Your task to perform on an android device: toggle show notifications on the lock screen Image 0: 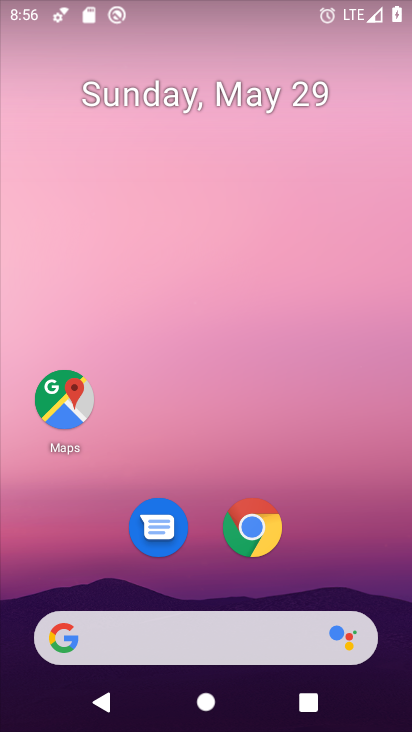
Step 0: press home button
Your task to perform on an android device: toggle show notifications on the lock screen Image 1: 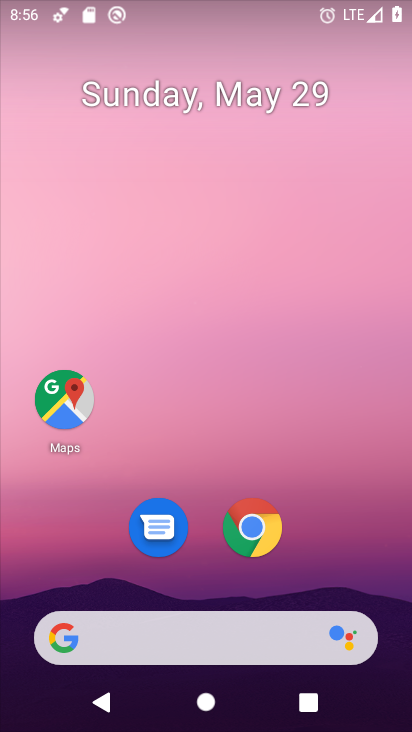
Step 1: drag from (209, 589) to (260, 104)
Your task to perform on an android device: toggle show notifications on the lock screen Image 2: 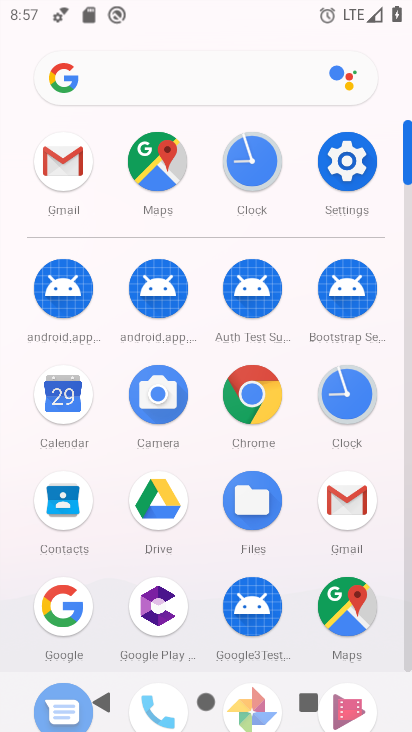
Step 2: click (342, 157)
Your task to perform on an android device: toggle show notifications on the lock screen Image 3: 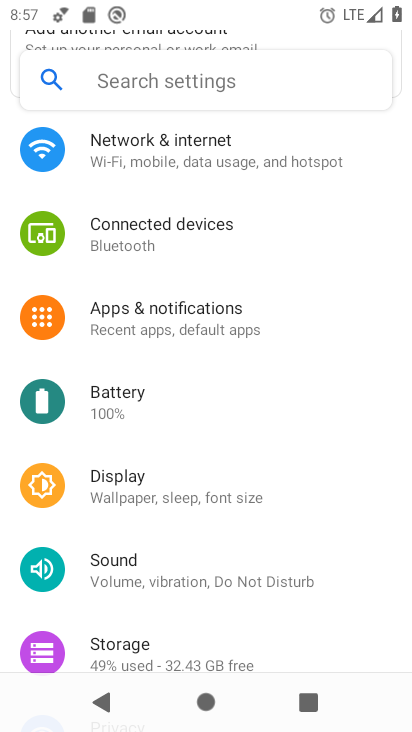
Step 3: click (267, 315)
Your task to perform on an android device: toggle show notifications on the lock screen Image 4: 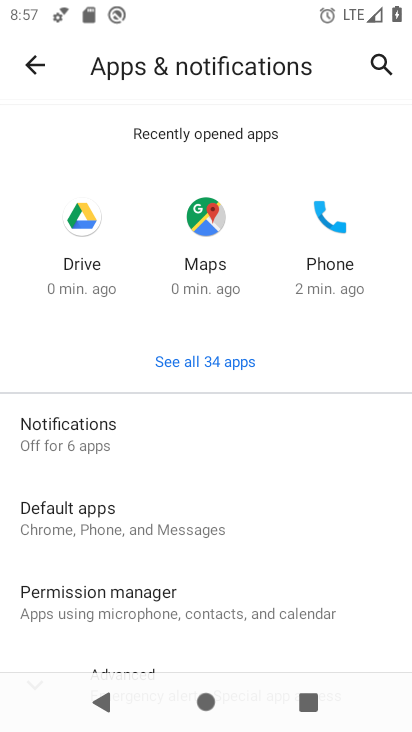
Step 4: click (141, 432)
Your task to perform on an android device: toggle show notifications on the lock screen Image 5: 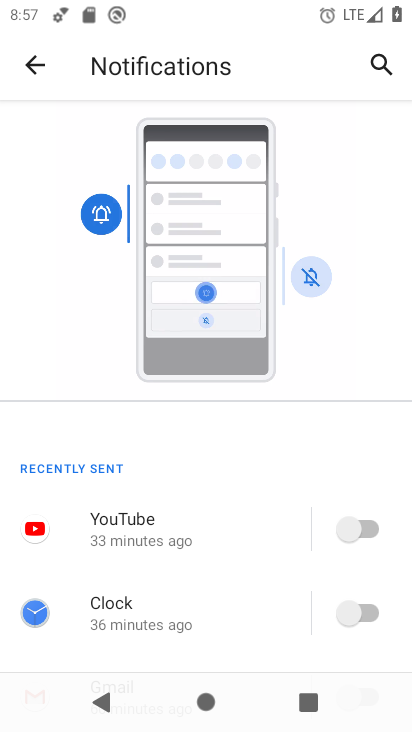
Step 5: drag from (230, 596) to (252, 124)
Your task to perform on an android device: toggle show notifications on the lock screen Image 6: 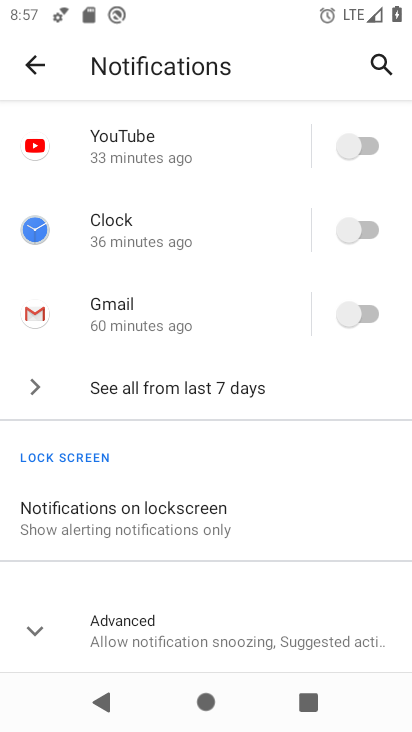
Step 6: click (244, 508)
Your task to perform on an android device: toggle show notifications on the lock screen Image 7: 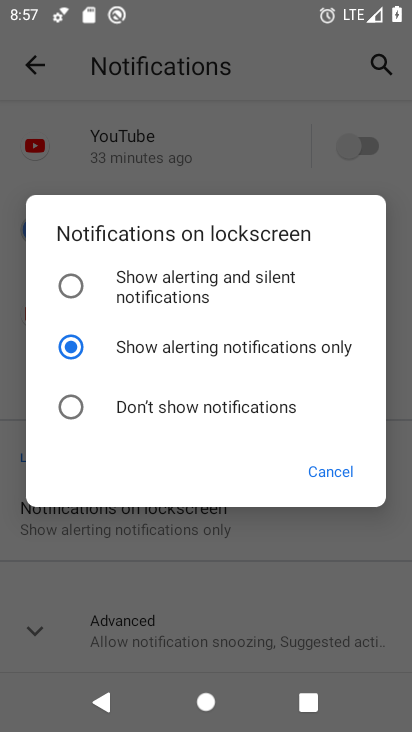
Step 7: click (71, 280)
Your task to perform on an android device: toggle show notifications on the lock screen Image 8: 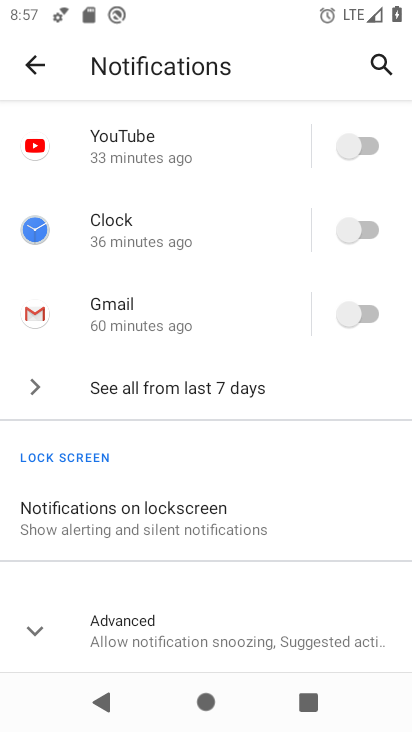
Step 8: task complete